Your task to perform on an android device: add a contact Image 0: 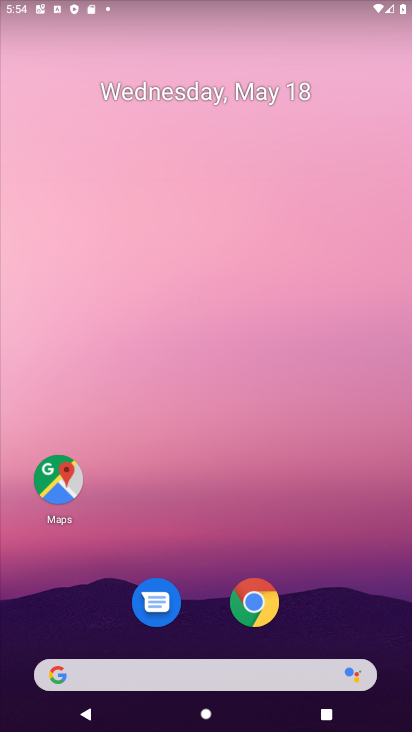
Step 0: drag from (226, 671) to (274, 4)
Your task to perform on an android device: add a contact Image 1: 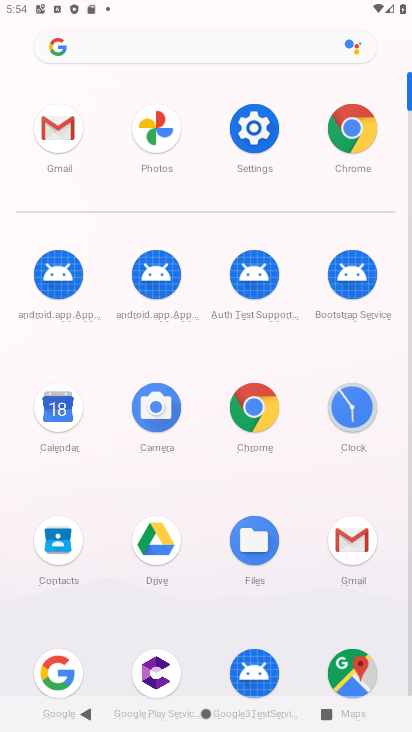
Step 1: click (76, 538)
Your task to perform on an android device: add a contact Image 2: 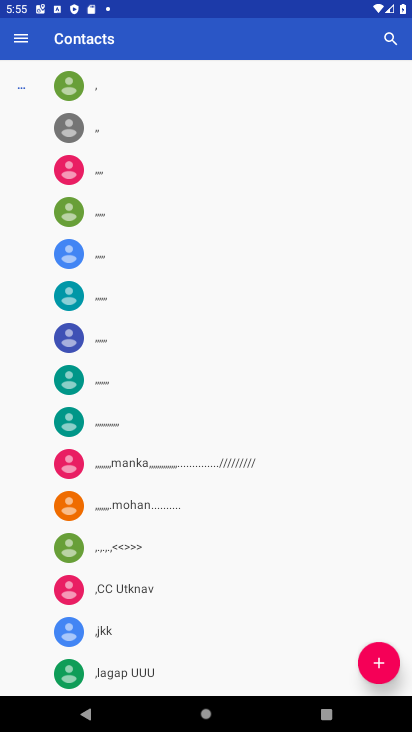
Step 2: click (384, 660)
Your task to perform on an android device: add a contact Image 3: 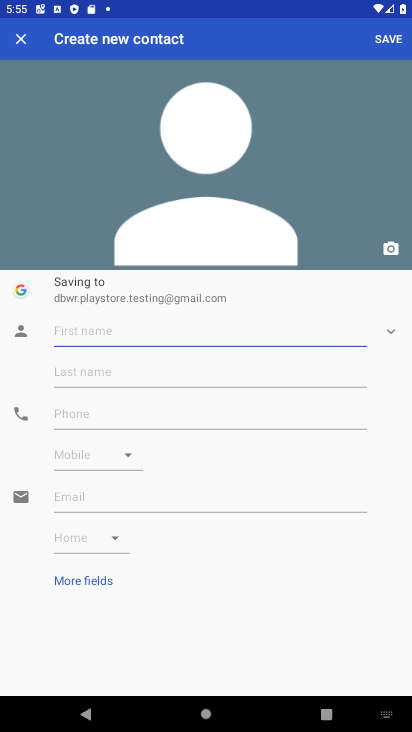
Step 3: type ""
Your task to perform on an android device: add a contact Image 4: 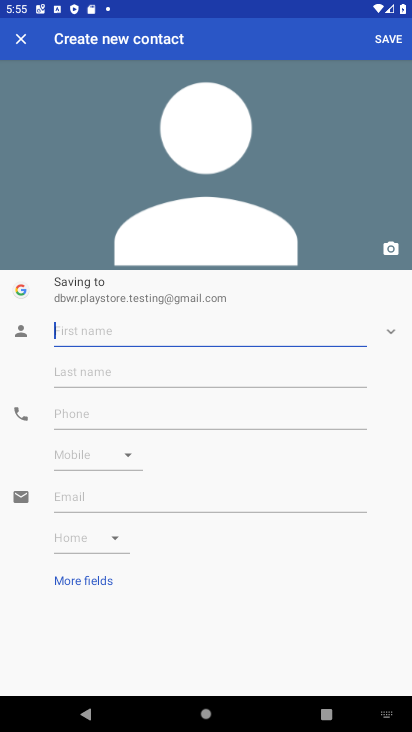
Step 4: type "sdsfdf"
Your task to perform on an android device: add a contact Image 5: 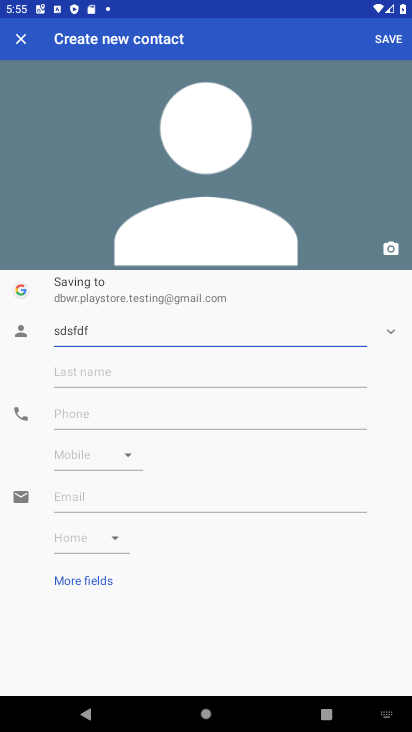
Step 5: click (146, 423)
Your task to perform on an android device: add a contact Image 6: 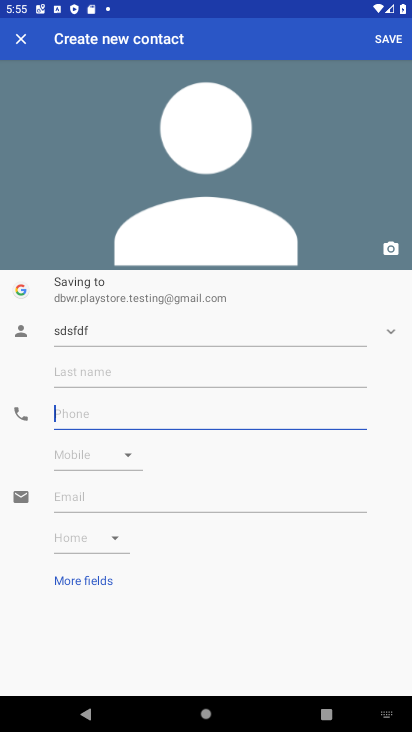
Step 6: type "566777"
Your task to perform on an android device: add a contact Image 7: 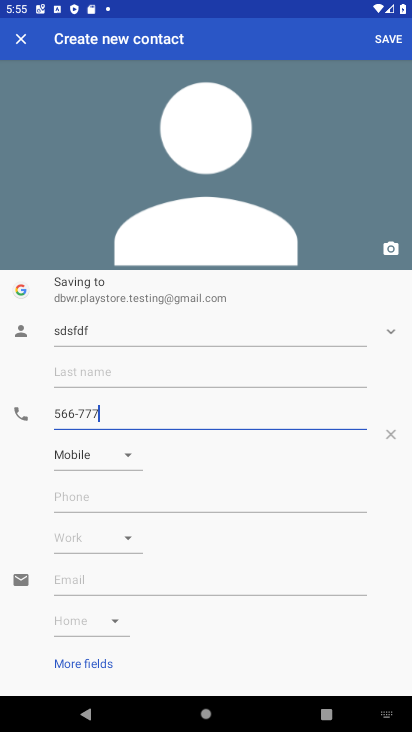
Step 7: click (380, 41)
Your task to perform on an android device: add a contact Image 8: 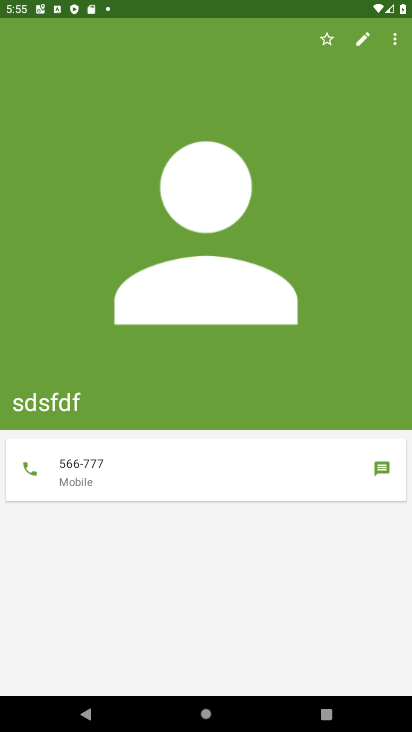
Step 8: task complete